Your task to perform on an android device: Open ESPN.com Image 0: 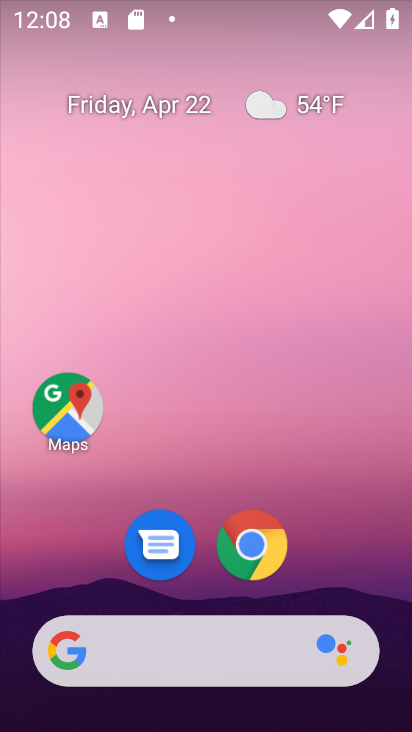
Step 0: click (269, 548)
Your task to perform on an android device: Open ESPN.com Image 1: 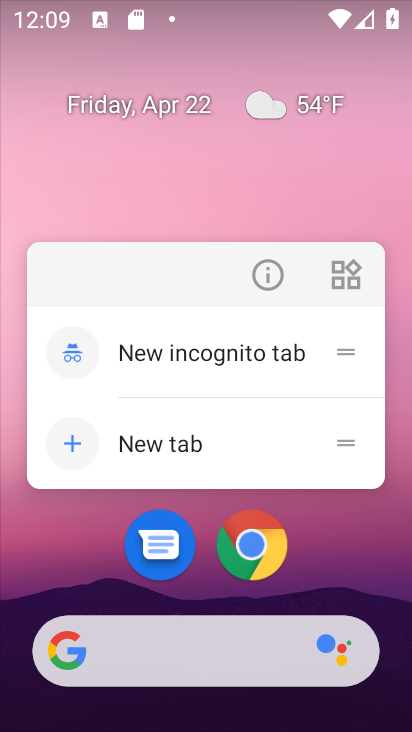
Step 1: click (283, 535)
Your task to perform on an android device: Open ESPN.com Image 2: 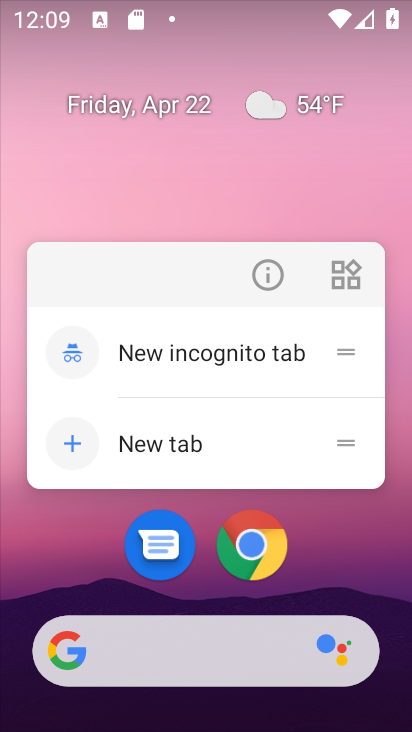
Step 2: click (278, 269)
Your task to perform on an android device: Open ESPN.com Image 3: 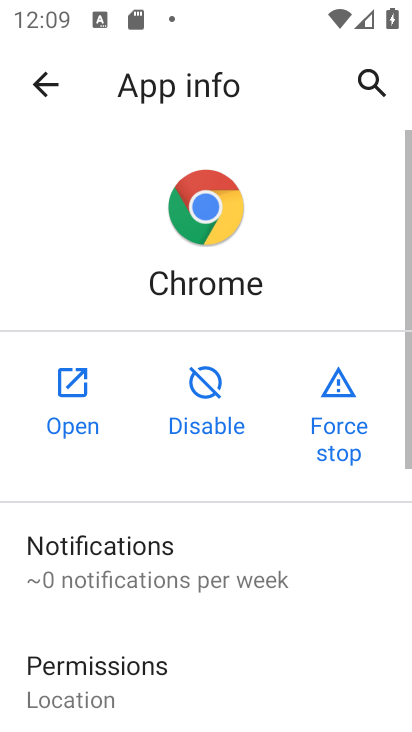
Step 3: click (69, 414)
Your task to perform on an android device: Open ESPN.com Image 4: 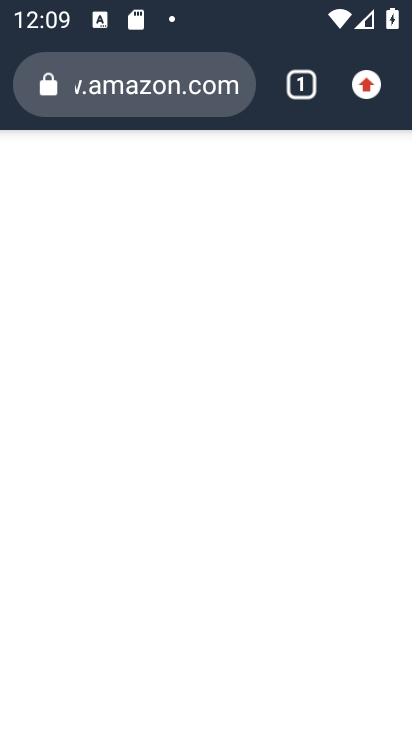
Step 4: click (287, 102)
Your task to perform on an android device: Open ESPN.com Image 5: 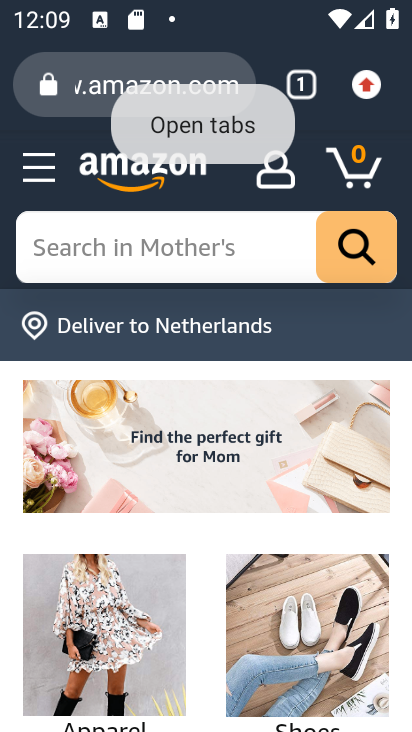
Step 5: click (285, 87)
Your task to perform on an android device: Open ESPN.com Image 6: 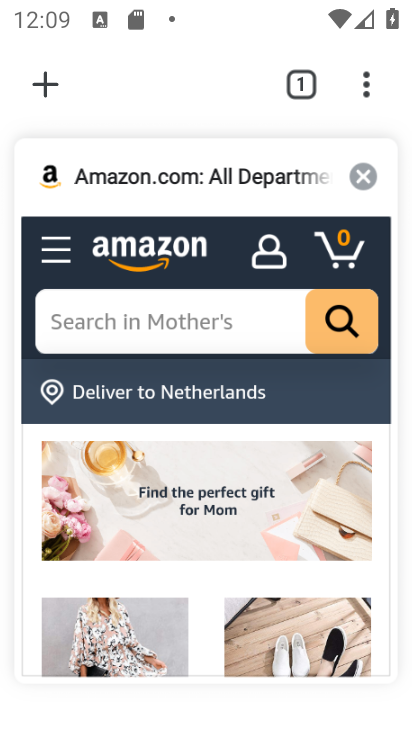
Step 6: click (46, 90)
Your task to perform on an android device: Open ESPN.com Image 7: 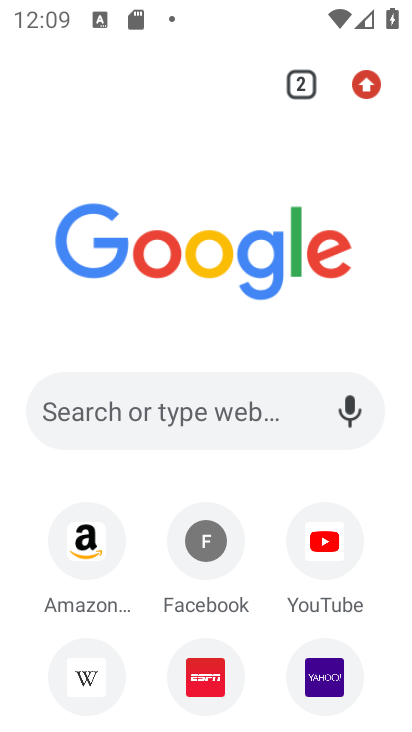
Step 7: click (215, 425)
Your task to perform on an android device: Open ESPN.com Image 8: 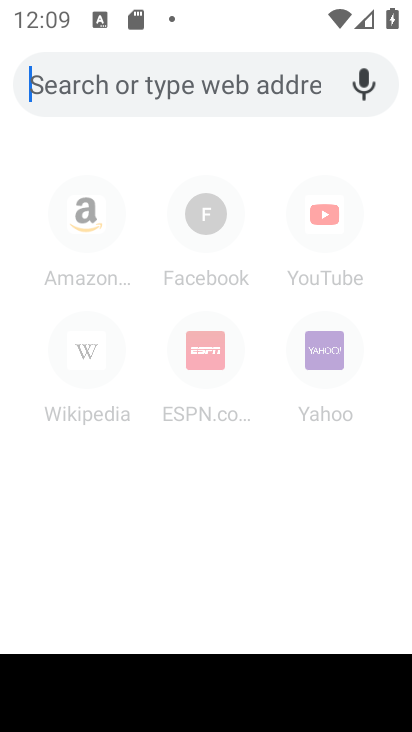
Step 8: type "ESPN.com"
Your task to perform on an android device: Open ESPN.com Image 9: 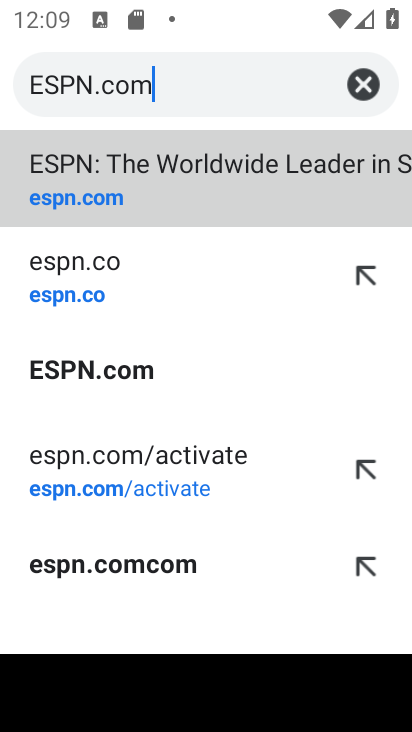
Step 9: type ""
Your task to perform on an android device: Open ESPN.com Image 10: 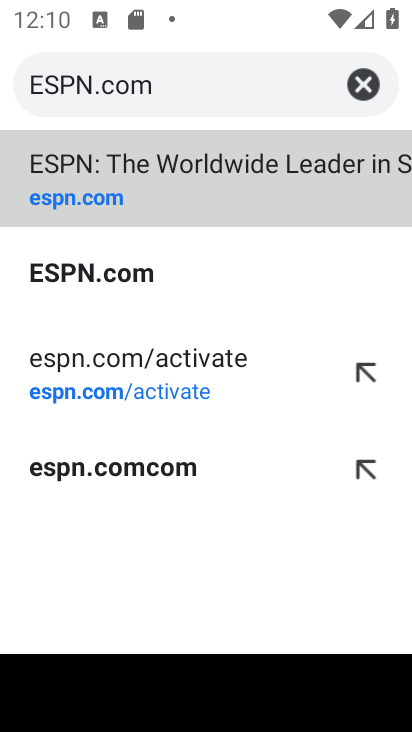
Step 10: click (171, 175)
Your task to perform on an android device: Open ESPN.com Image 11: 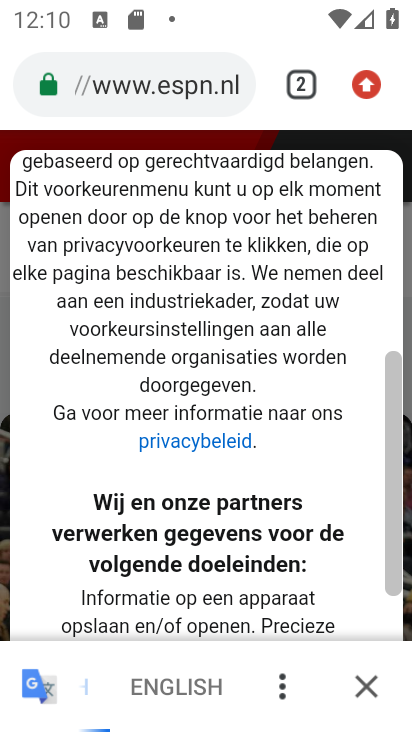
Step 11: task complete